Your task to perform on an android device: Open Amazon Image 0: 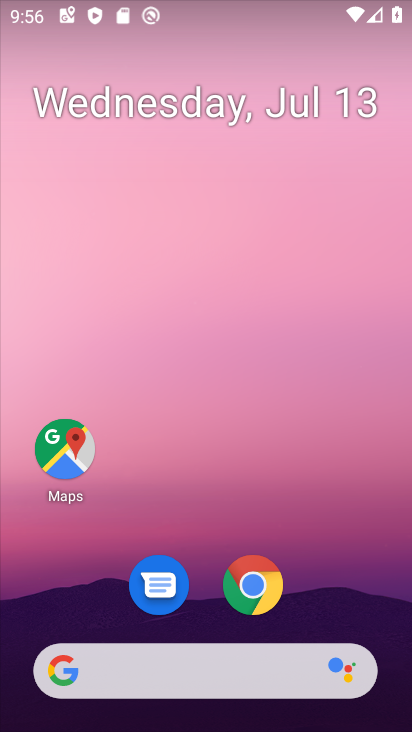
Step 0: click (264, 582)
Your task to perform on an android device: Open Amazon Image 1: 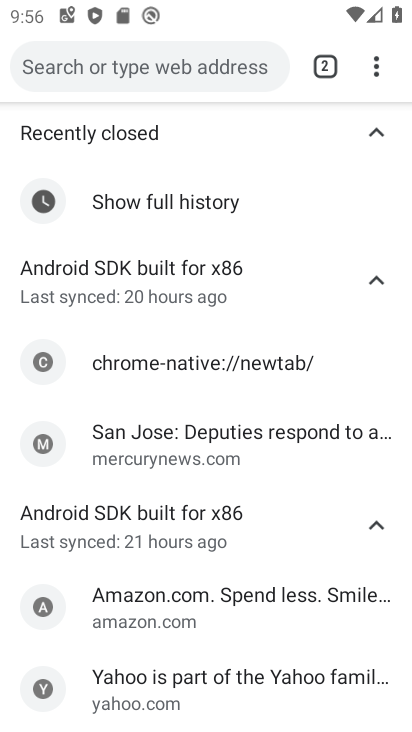
Step 1: click (371, 65)
Your task to perform on an android device: Open Amazon Image 2: 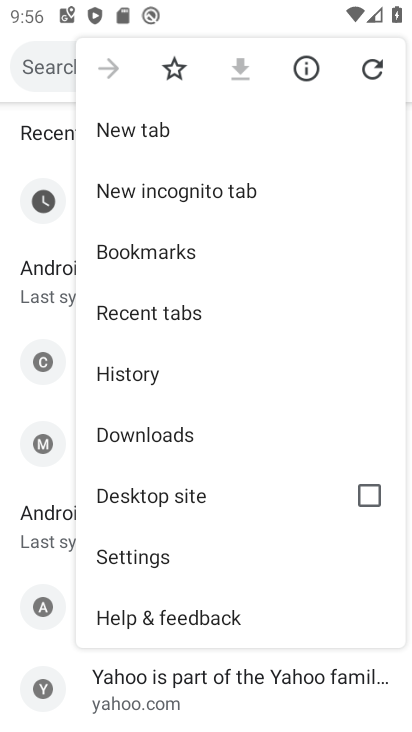
Step 2: click (222, 138)
Your task to perform on an android device: Open Amazon Image 3: 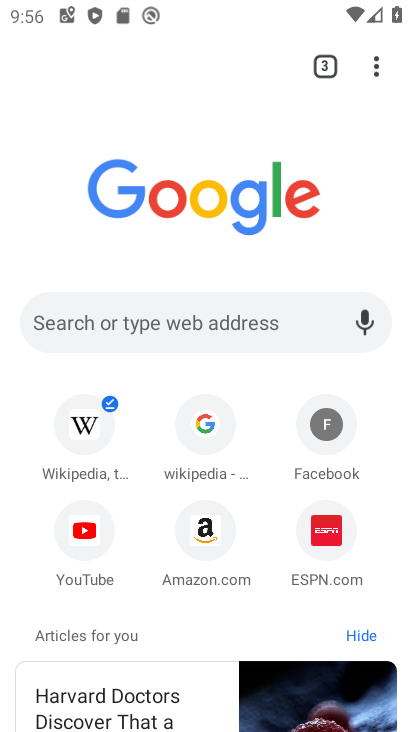
Step 3: click (203, 525)
Your task to perform on an android device: Open Amazon Image 4: 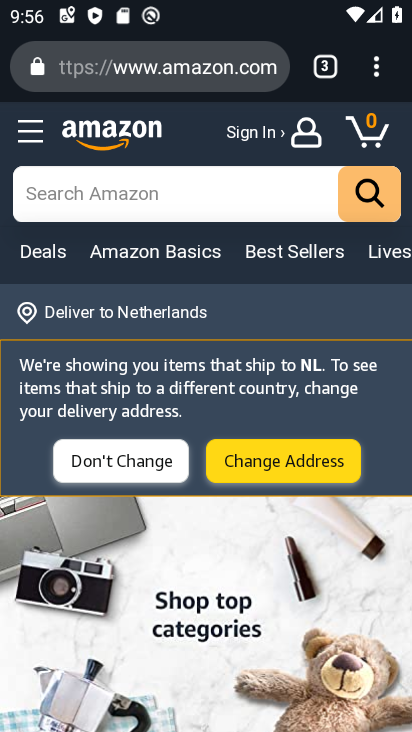
Step 4: task complete